Your task to perform on an android device: Open CNN.com Image 0: 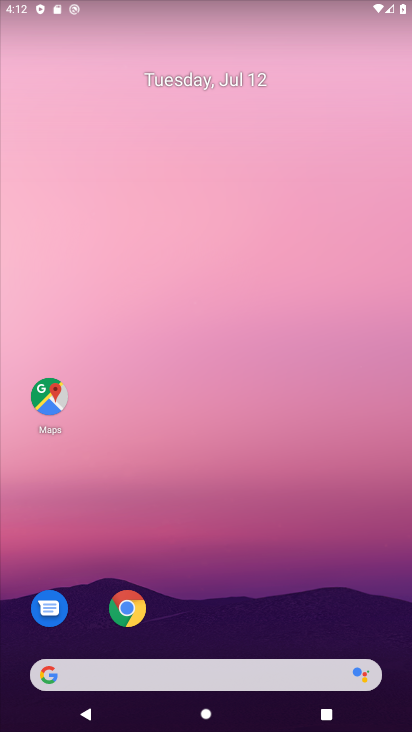
Step 0: click (156, 680)
Your task to perform on an android device: Open CNN.com Image 1: 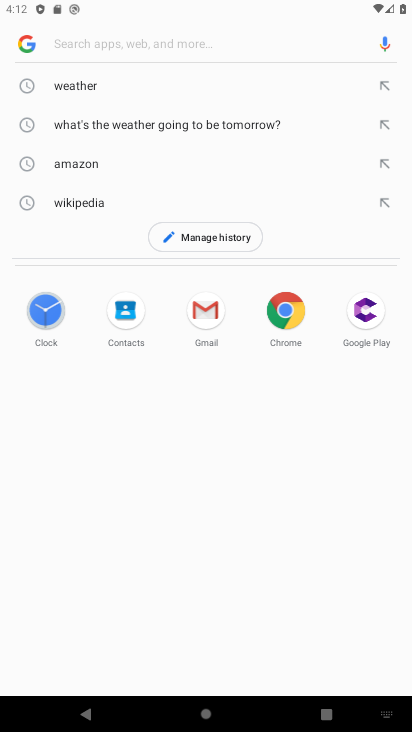
Step 1: type "cnn"
Your task to perform on an android device: Open CNN.com Image 2: 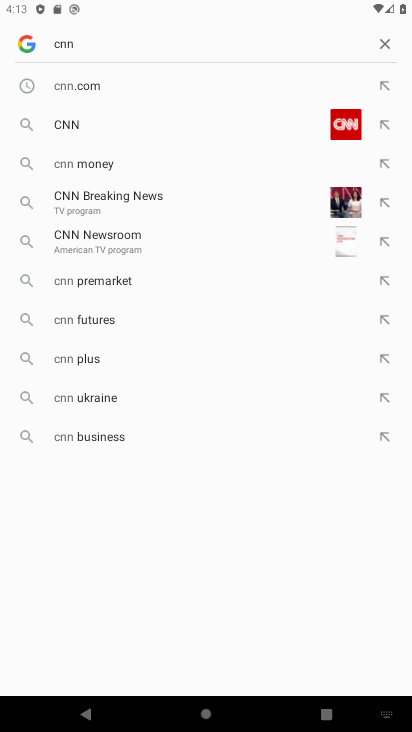
Step 2: click (66, 90)
Your task to perform on an android device: Open CNN.com Image 3: 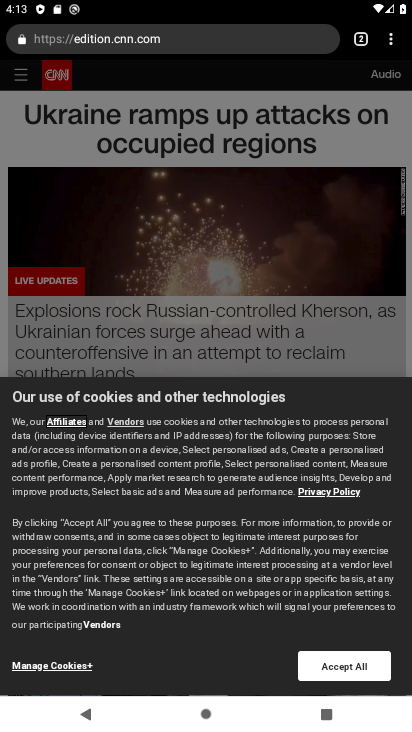
Step 3: task complete